Your task to perform on an android device: add a label to a message in the gmail app Image 0: 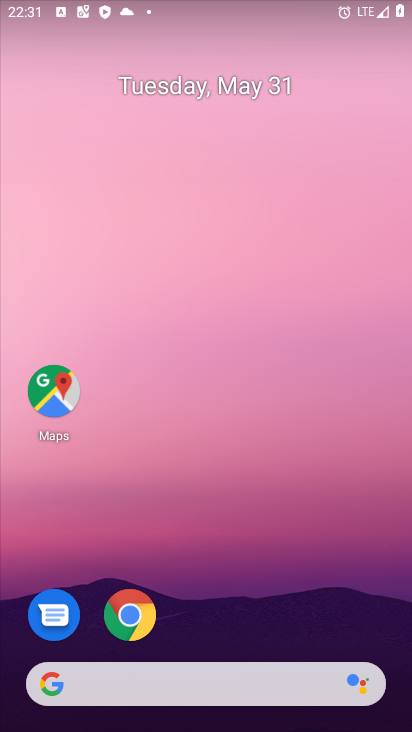
Step 0: drag from (385, 630) to (299, 117)
Your task to perform on an android device: add a label to a message in the gmail app Image 1: 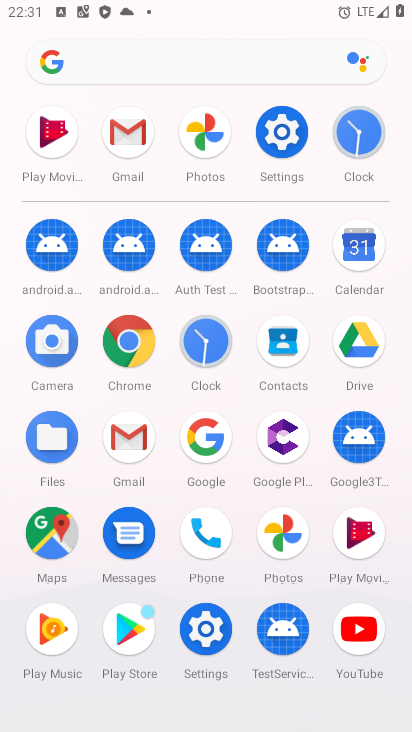
Step 1: click (130, 440)
Your task to perform on an android device: add a label to a message in the gmail app Image 2: 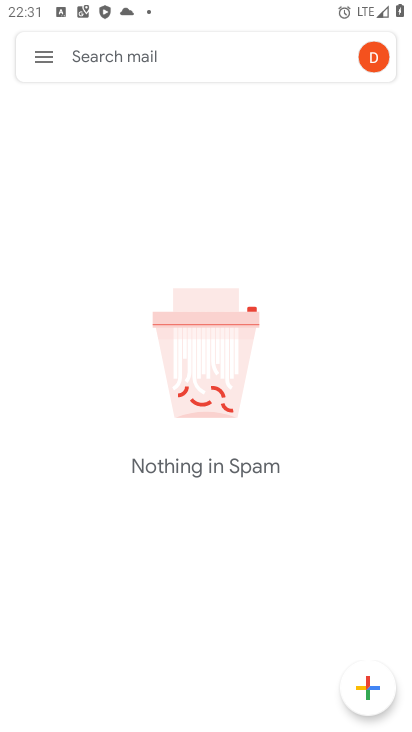
Step 2: click (40, 59)
Your task to perform on an android device: add a label to a message in the gmail app Image 3: 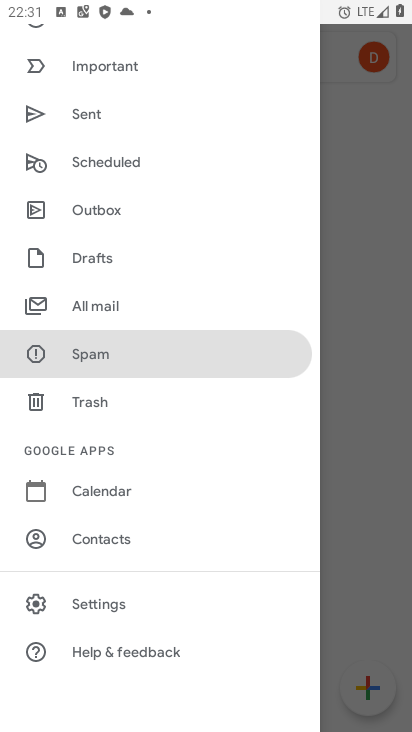
Step 3: click (107, 302)
Your task to perform on an android device: add a label to a message in the gmail app Image 4: 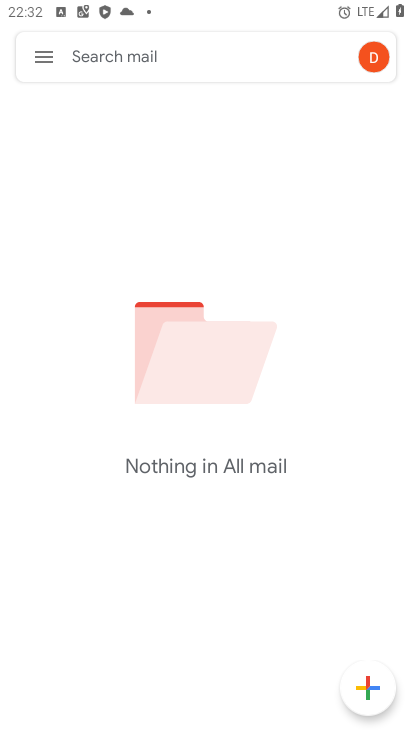
Step 4: task complete